Your task to perform on an android device: toggle wifi Image 0: 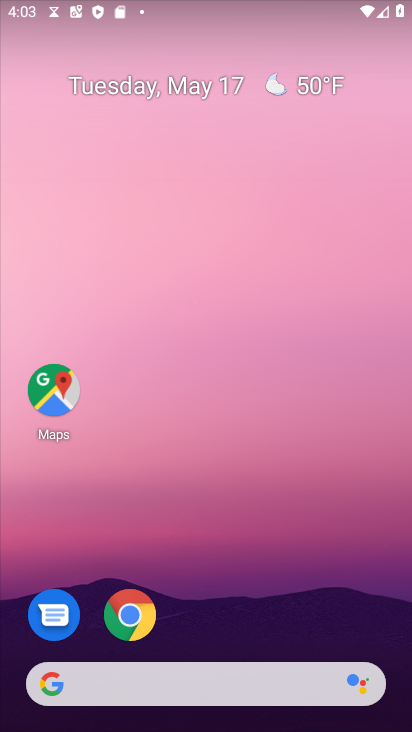
Step 0: drag from (295, 564) to (283, 431)
Your task to perform on an android device: toggle wifi Image 1: 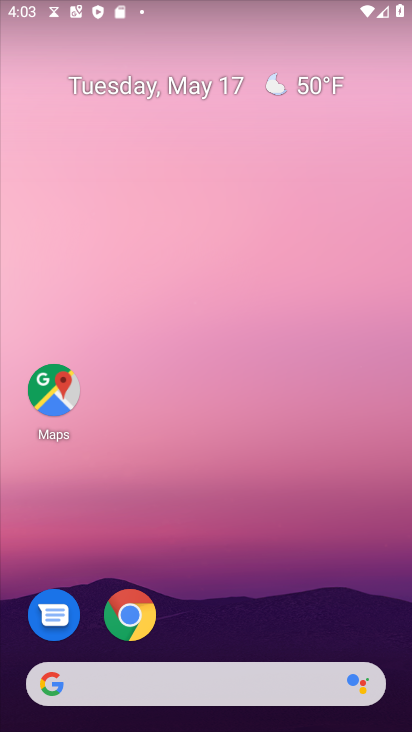
Step 1: drag from (288, 618) to (219, 193)
Your task to perform on an android device: toggle wifi Image 2: 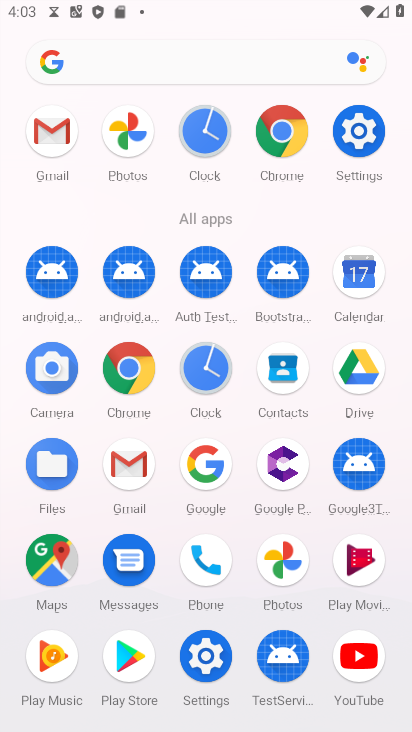
Step 2: click (359, 143)
Your task to perform on an android device: toggle wifi Image 3: 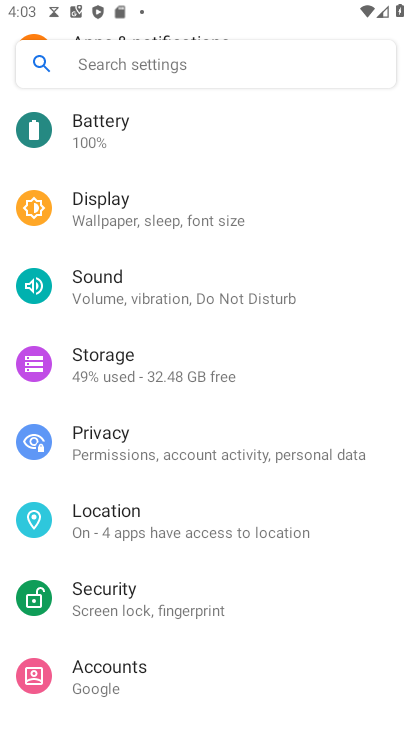
Step 3: drag from (130, 193) to (122, 463)
Your task to perform on an android device: toggle wifi Image 4: 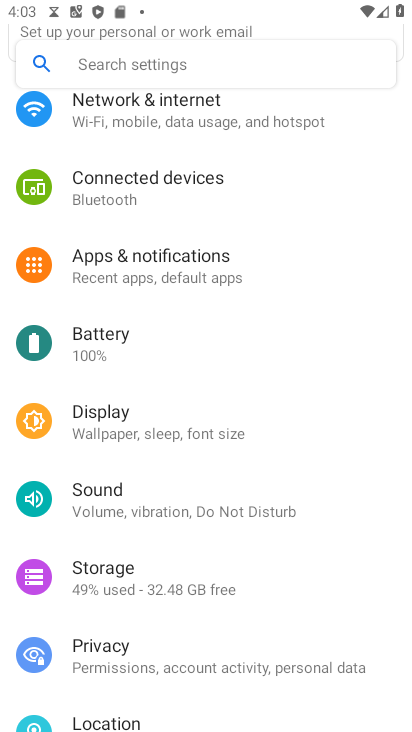
Step 4: click (164, 121)
Your task to perform on an android device: toggle wifi Image 5: 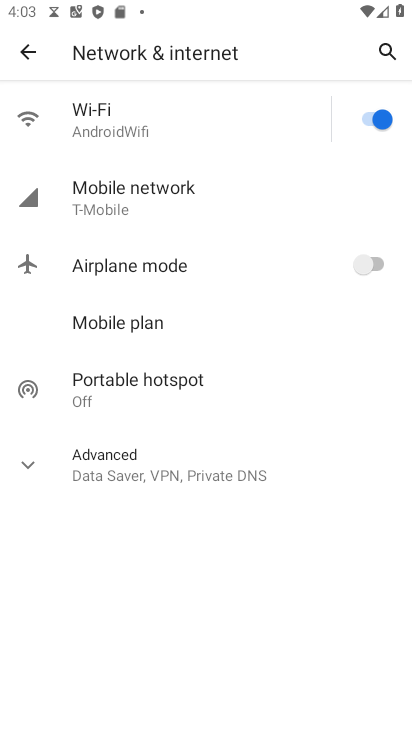
Step 5: click (378, 115)
Your task to perform on an android device: toggle wifi Image 6: 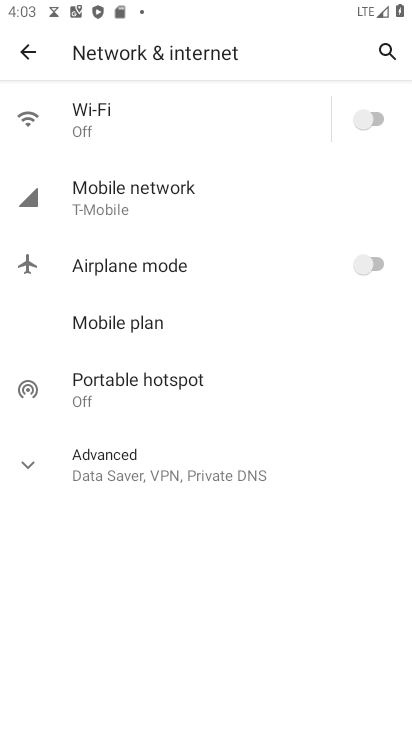
Step 6: task complete